Your task to perform on an android device: turn off sleep mode Image 0: 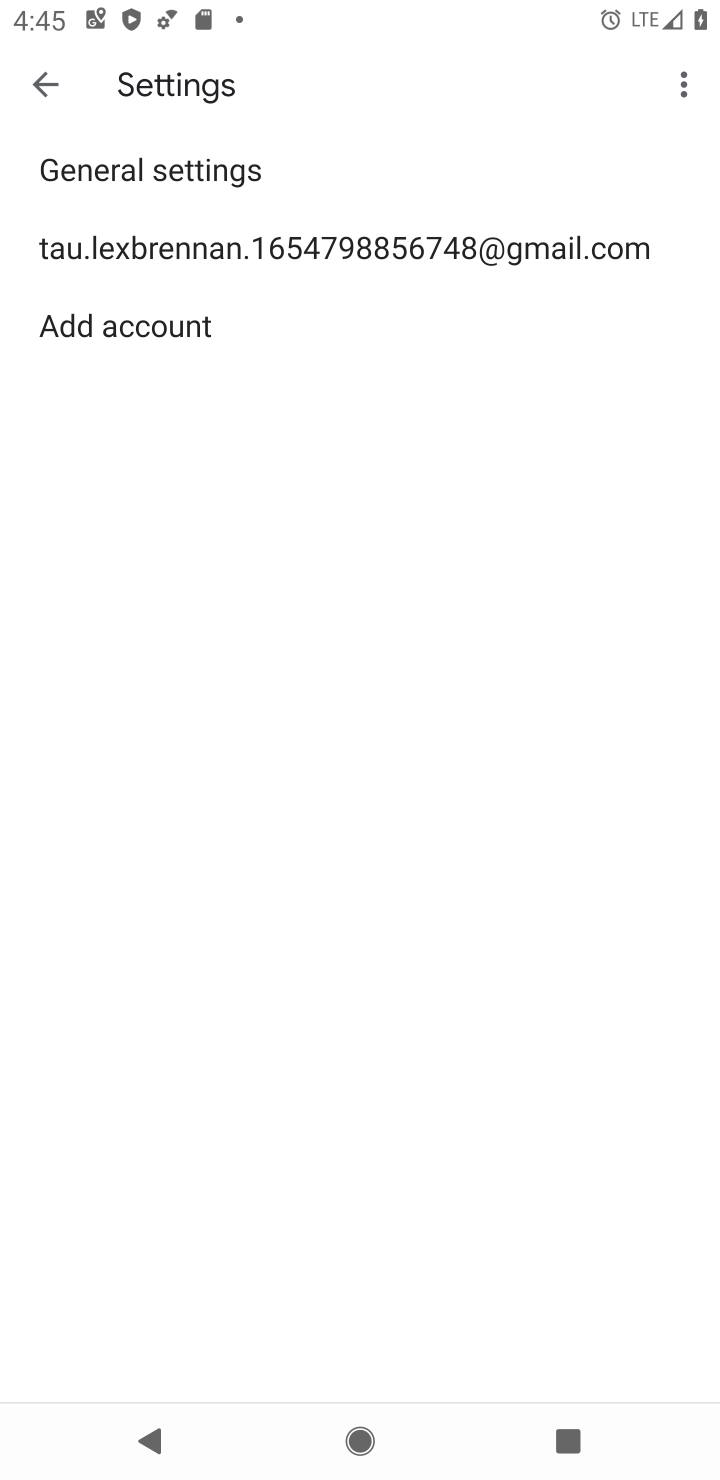
Step 0: press home button
Your task to perform on an android device: turn off sleep mode Image 1: 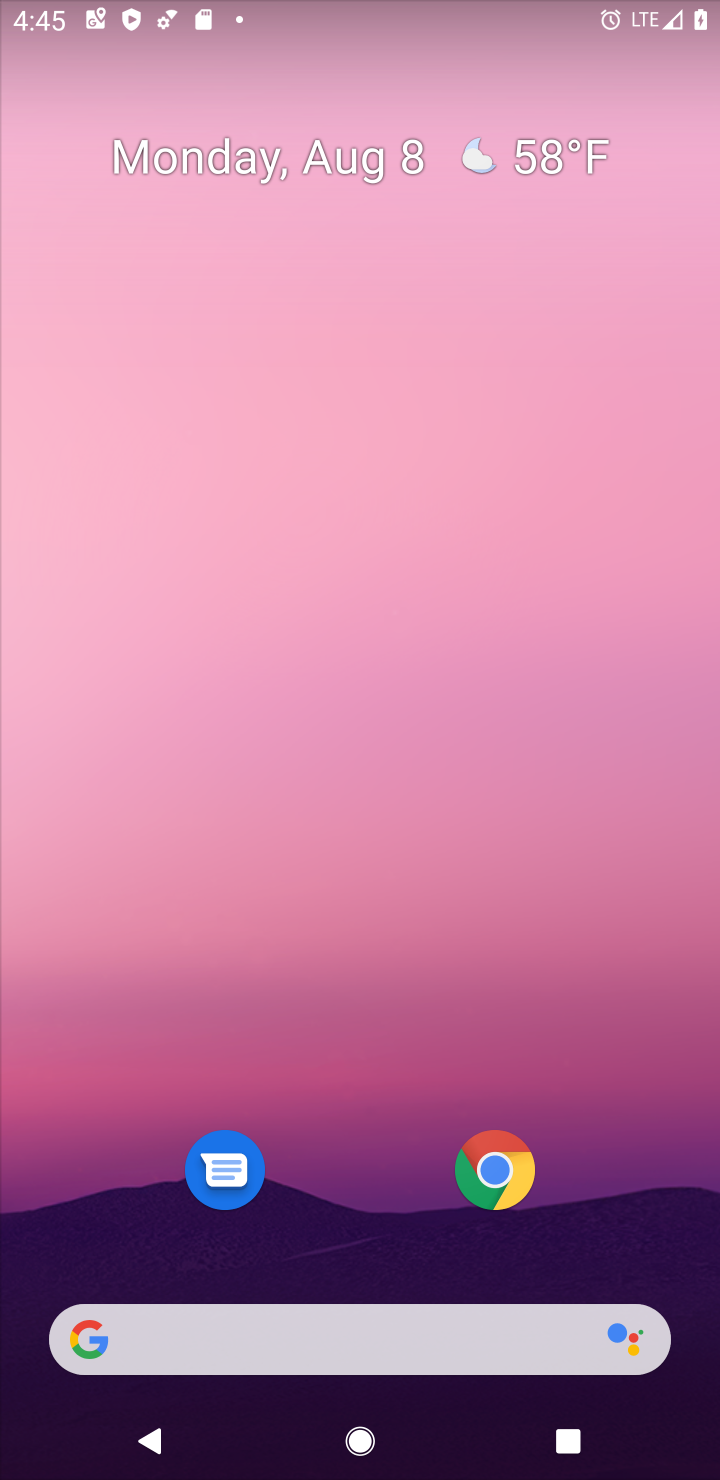
Step 1: drag from (369, 978) to (344, 371)
Your task to perform on an android device: turn off sleep mode Image 2: 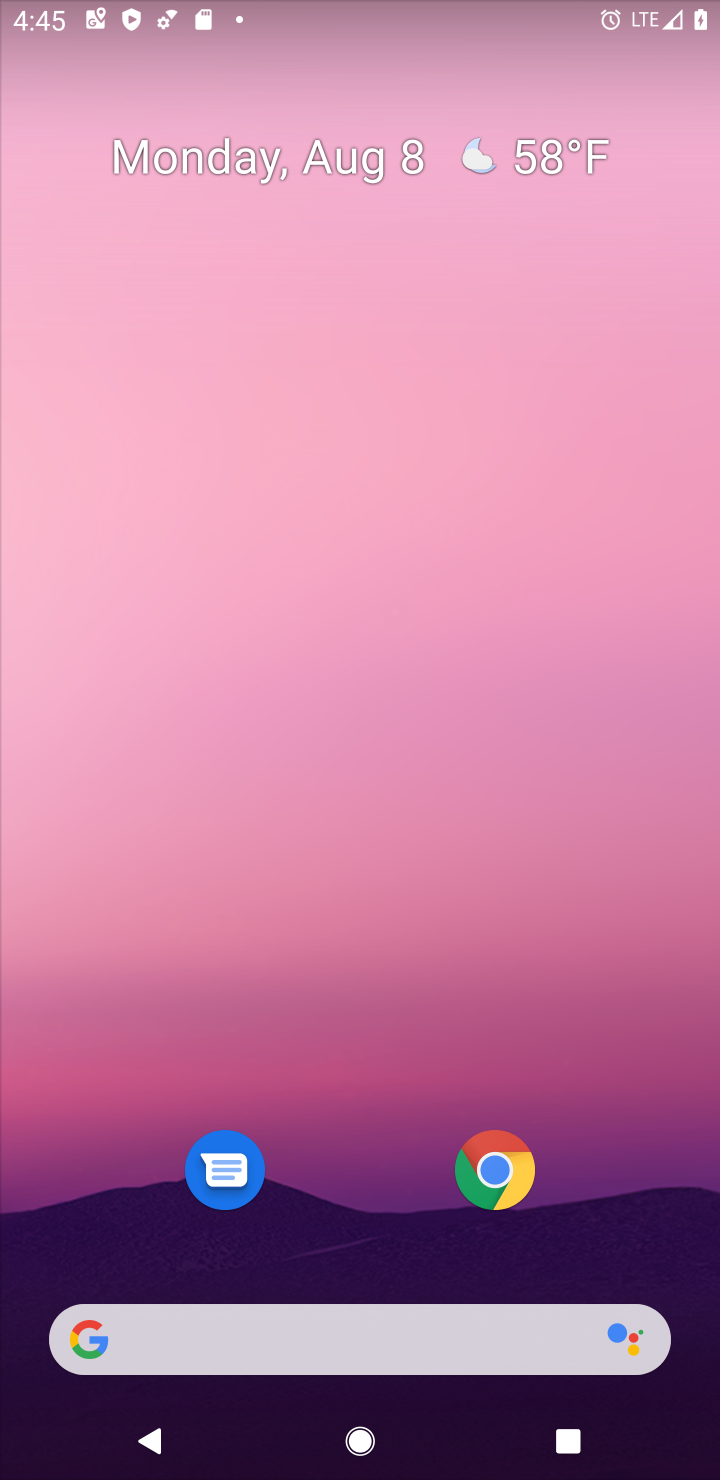
Step 2: drag from (358, 1224) to (358, 356)
Your task to perform on an android device: turn off sleep mode Image 3: 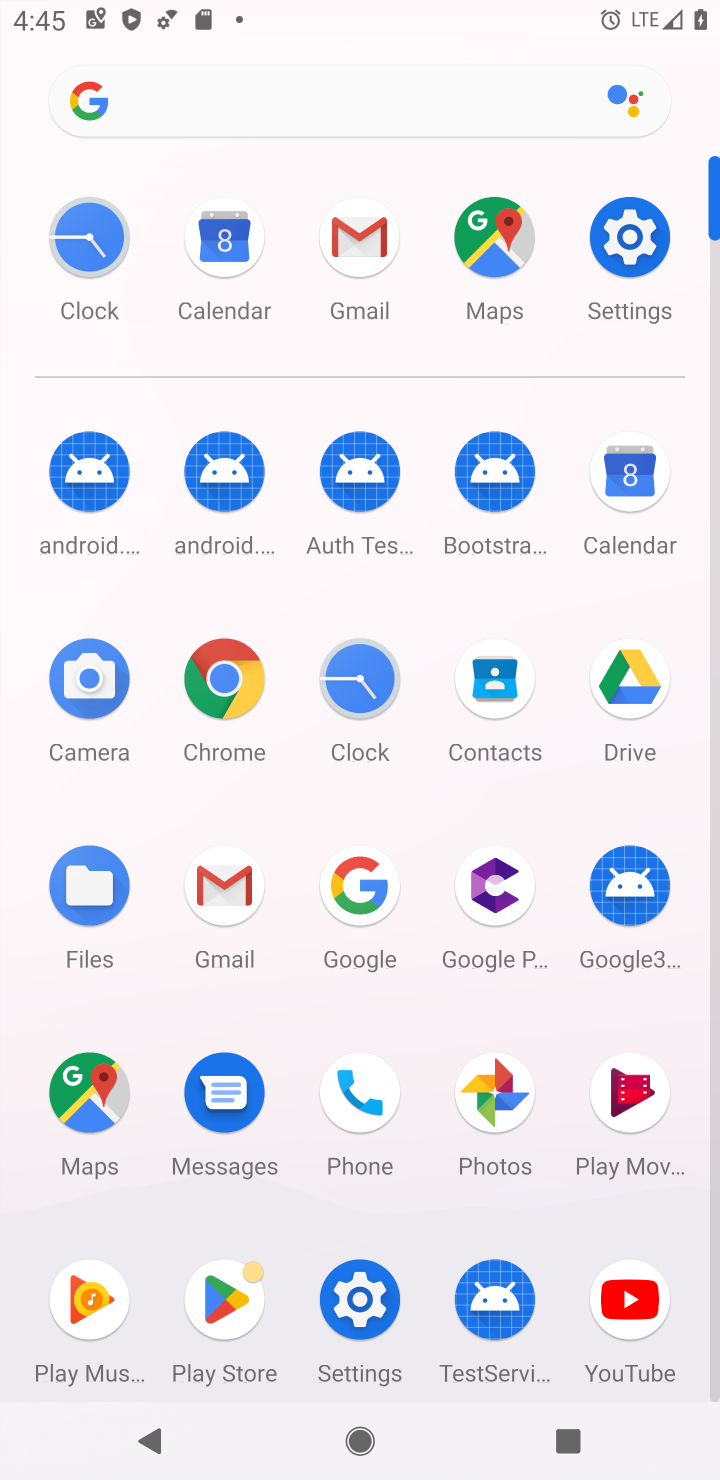
Step 3: click (617, 246)
Your task to perform on an android device: turn off sleep mode Image 4: 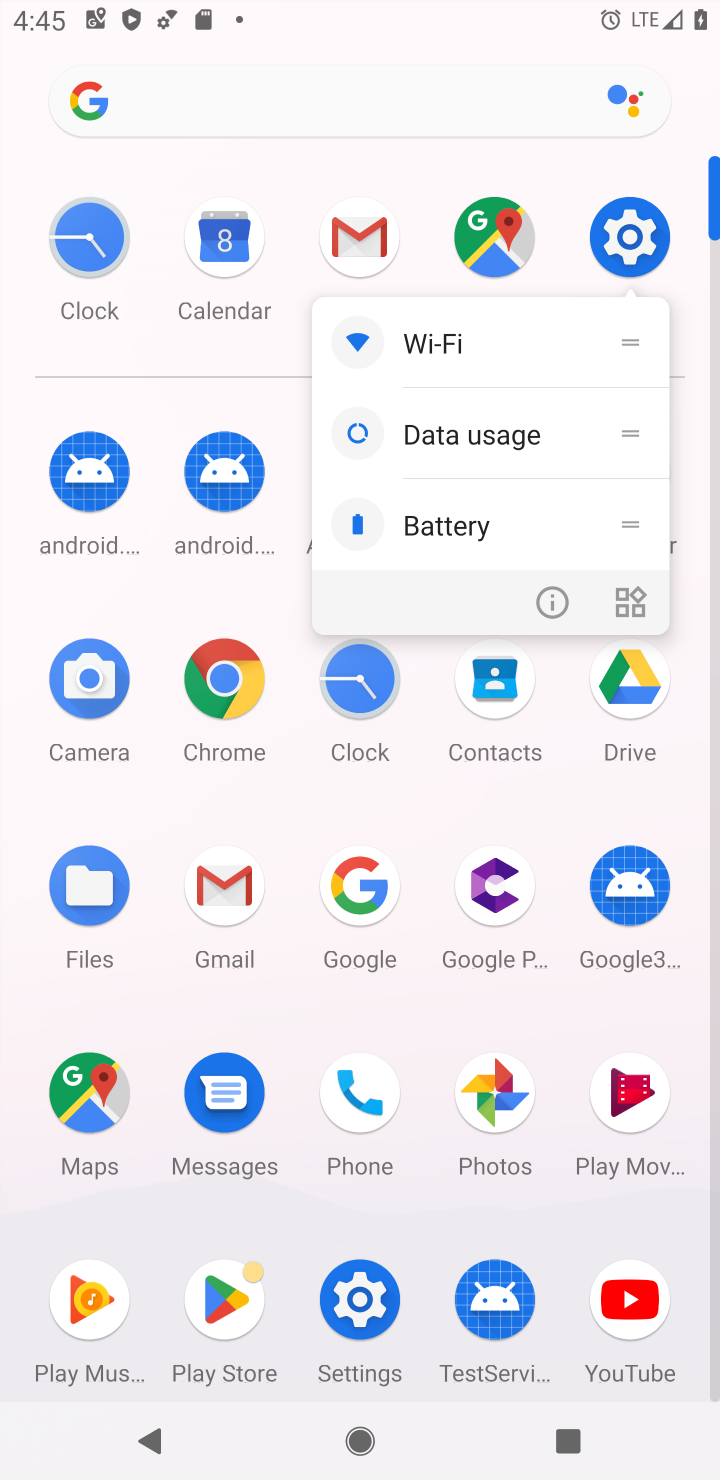
Step 4: click (617, 246)
Your task to perform on an android device: turn off sleep mode Image 5: 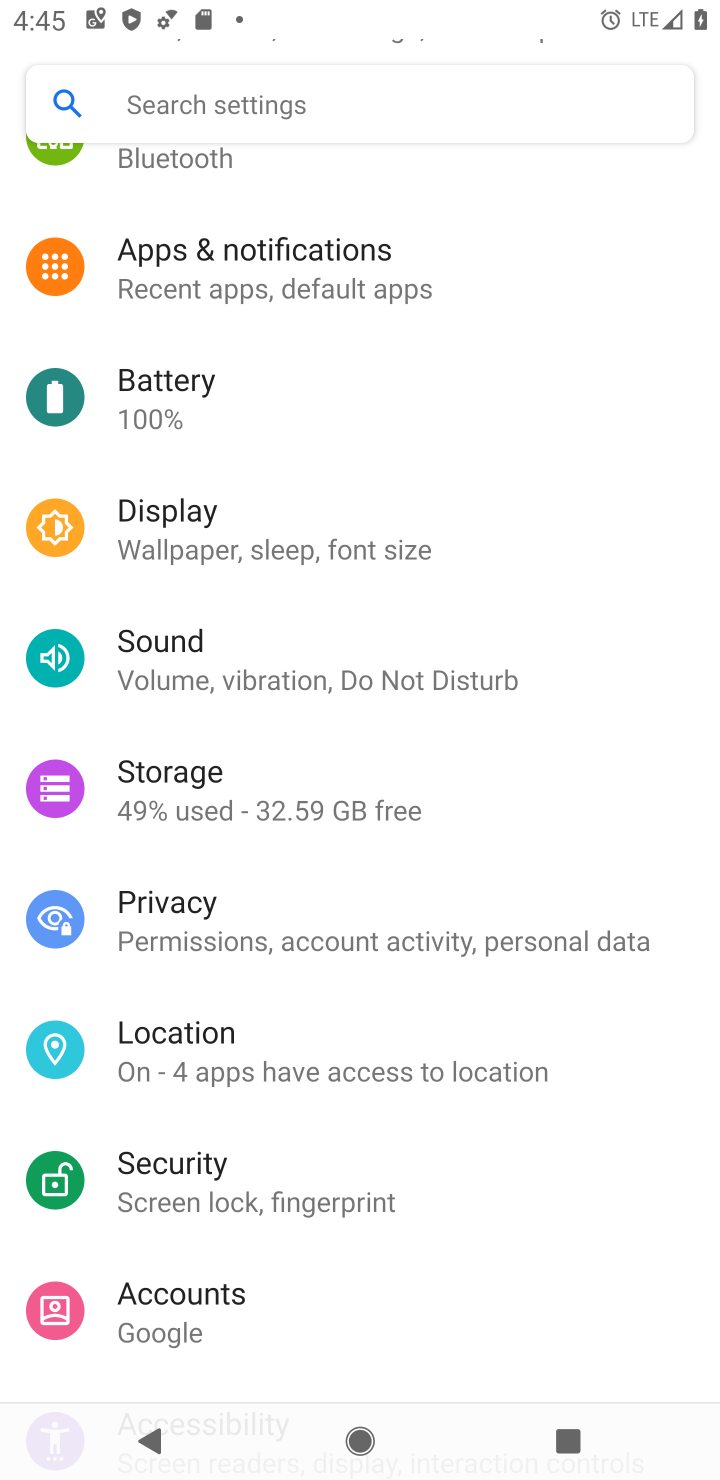
Step 5: click (249, 521)
Your task to perform on an android device: turn off sleep mode Image 6: 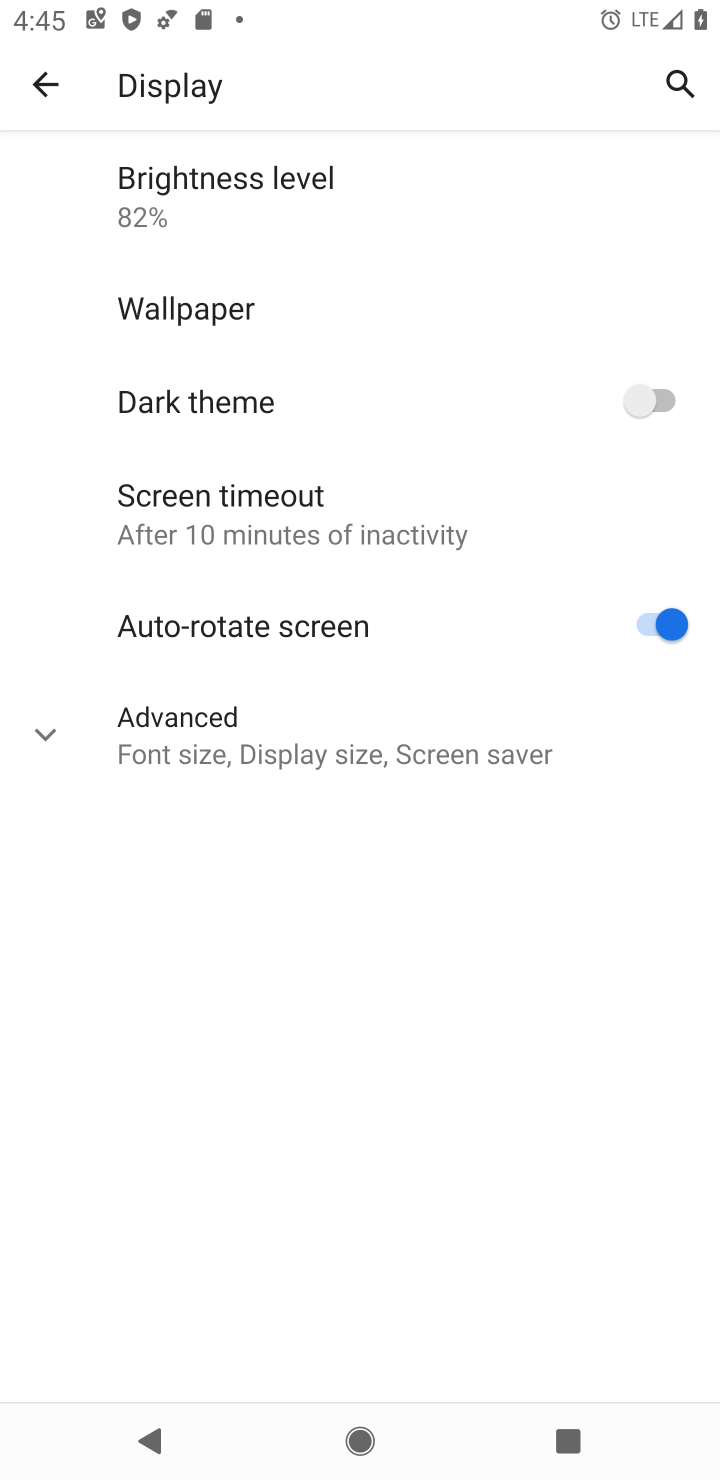
Step 6: click (304, 528)
Your task to perform on an android device: turn off sleep mode Image 7: 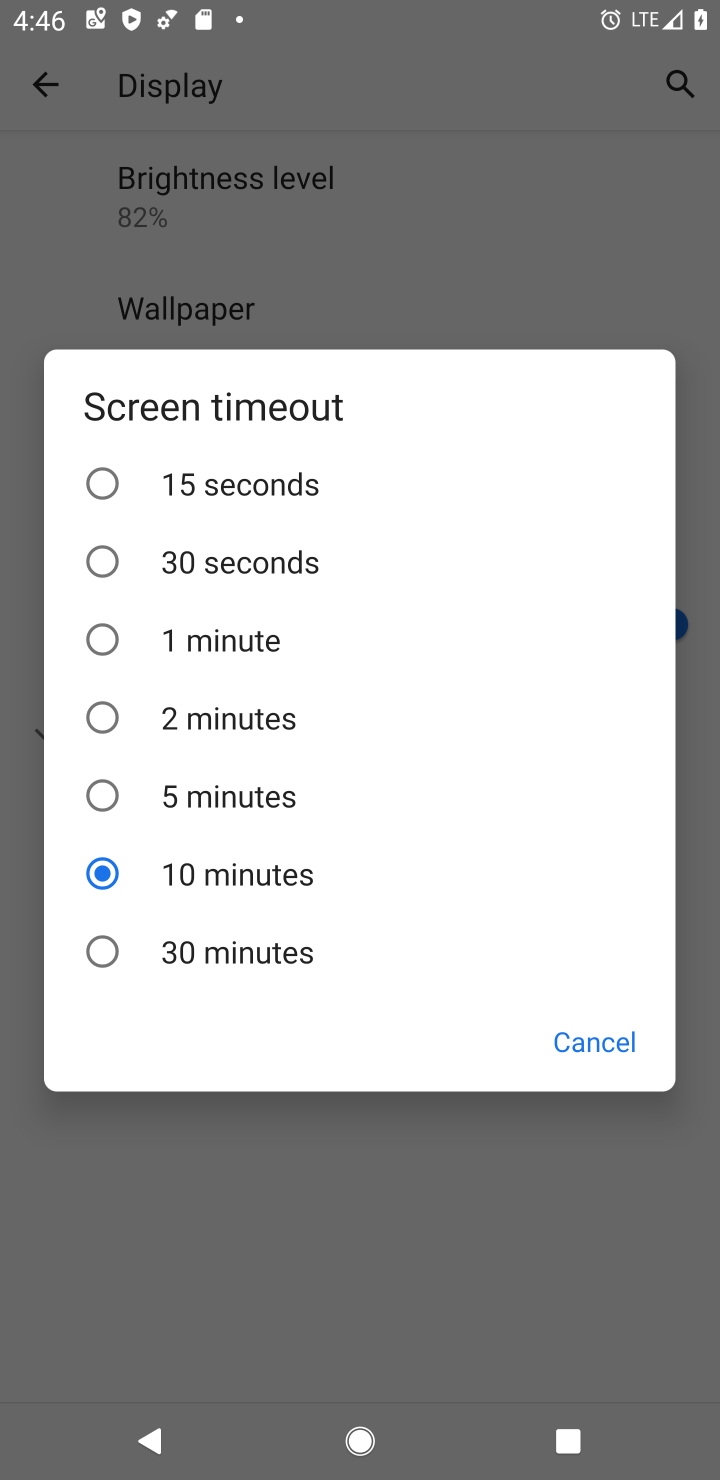
Step 7: click (250, 495)
Your task to perform on an android device: turn off sleep mode Image 8: 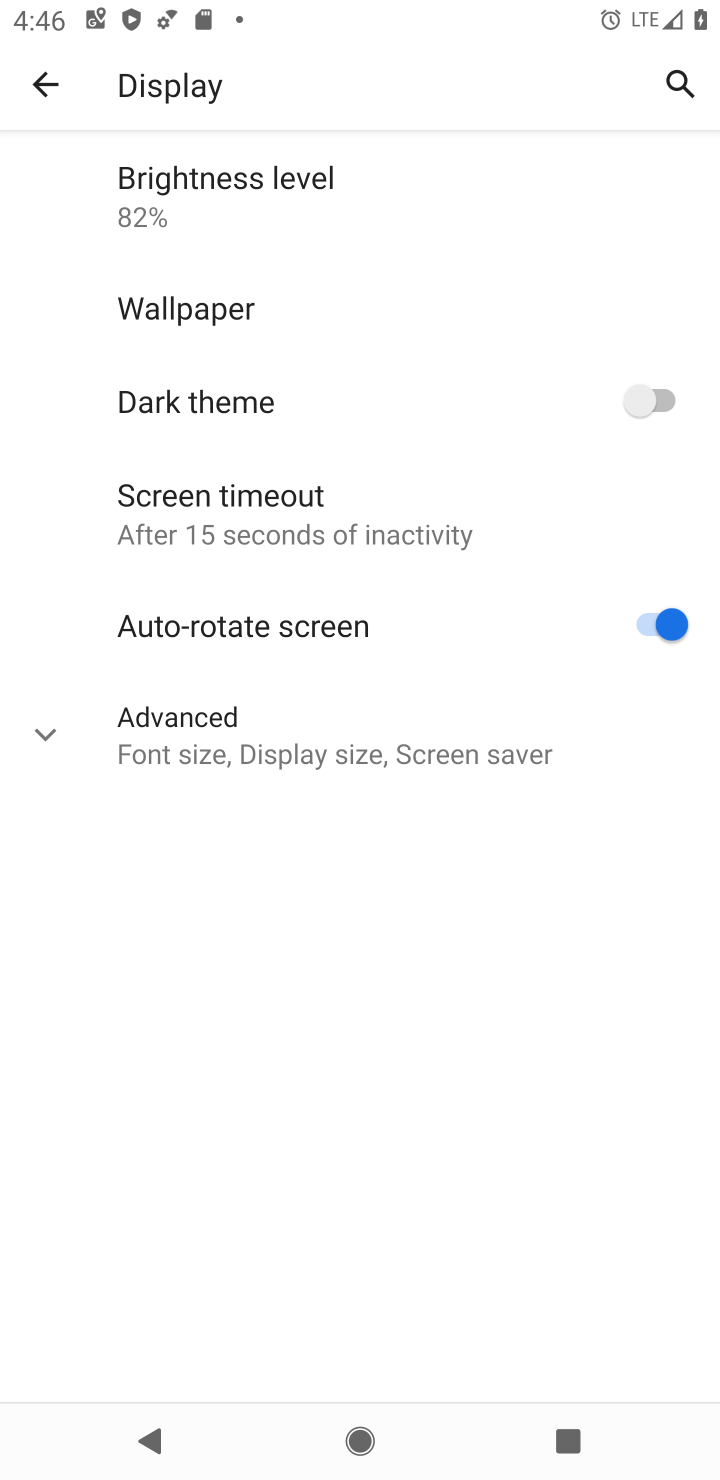
Step 8: task complete